Your task to perform on an android device: remove spam from my inbox in the gmail app Image 0: 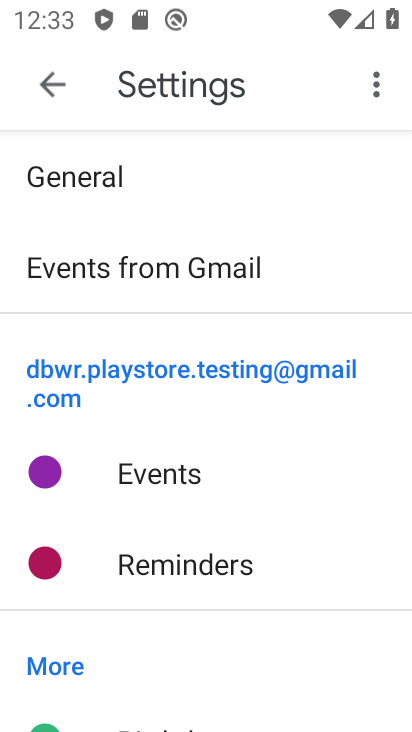
Step 0: press home button
Your task to perform on an android device: remove spam from my inbox in the gmail app Image 1: 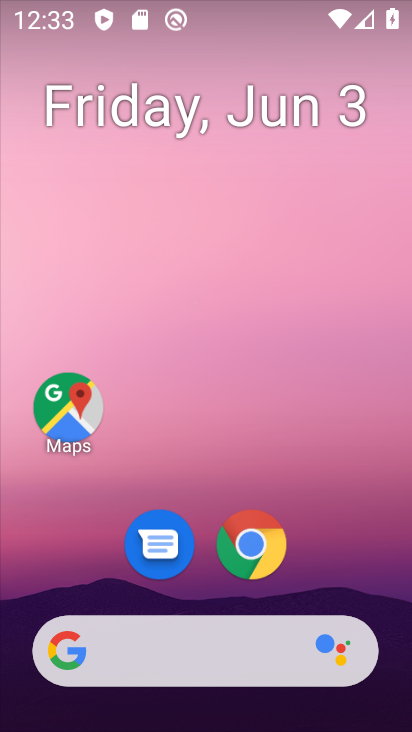
Step 1: drag from (201, 589) to (275, 23)
Your task to perform on an android device: remove spam from my inbox in the gmail app Image 2: 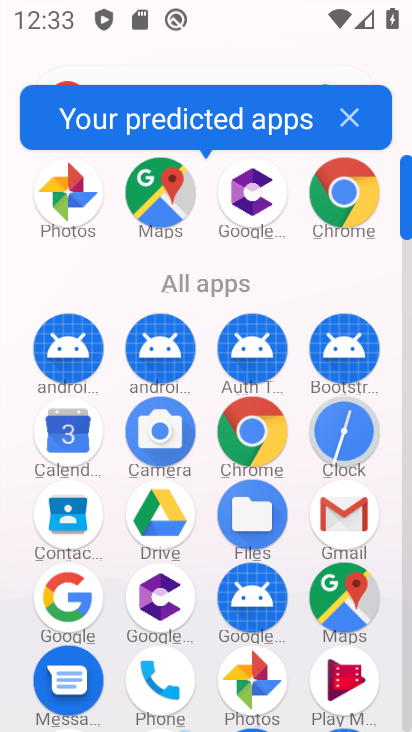
Step 2: click (337, 503)
Your task to perform on an android device: remove spam from my inbox in the gmail app Image 3: 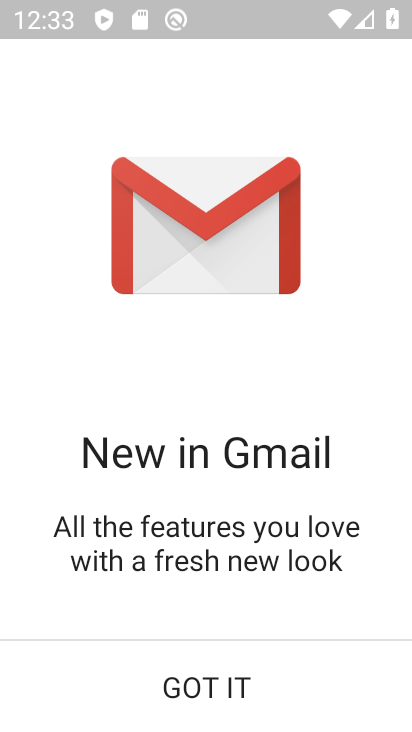
Step 3: click (224, 672)
Your task to perform on an android device: remove spam from my inbox in the gmail app Image 4: 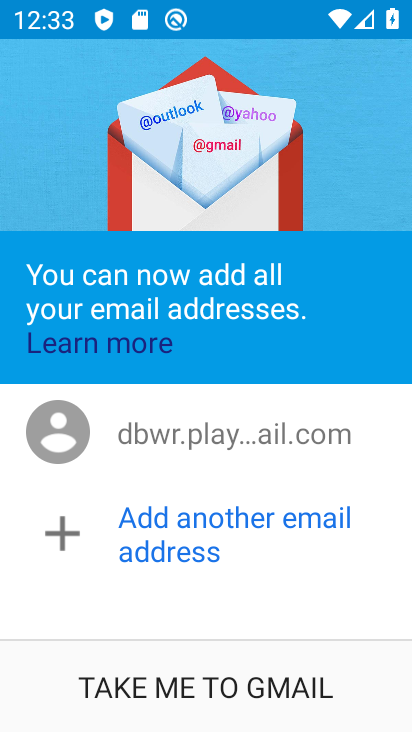
Step 4: click (211, 685)
Your task to perform on an android device: remove spam from my inbox in the gmail app Image 5: 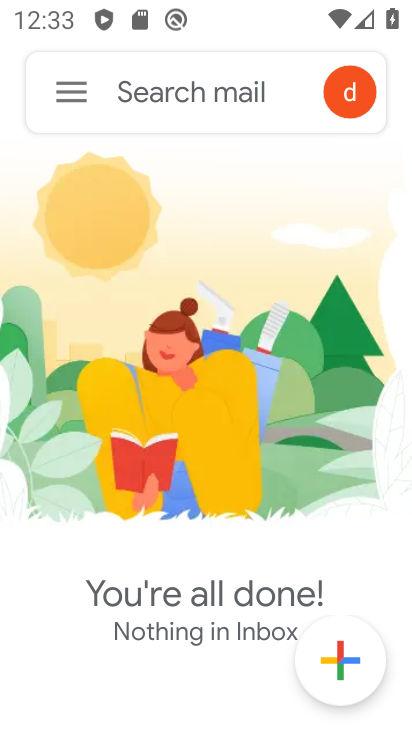
Step 5: click (64, 77)
Your task to perform on an android device: remove spam from my inbox in the gmail app Image 6: 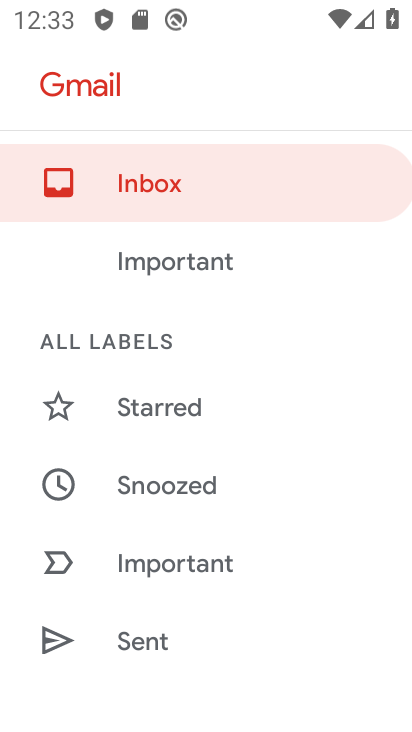
Step 6: drag from (164, 542) to (163, 51)
Your task to perform on an android device: remove spam from my inbox in the gmail app Image 7: 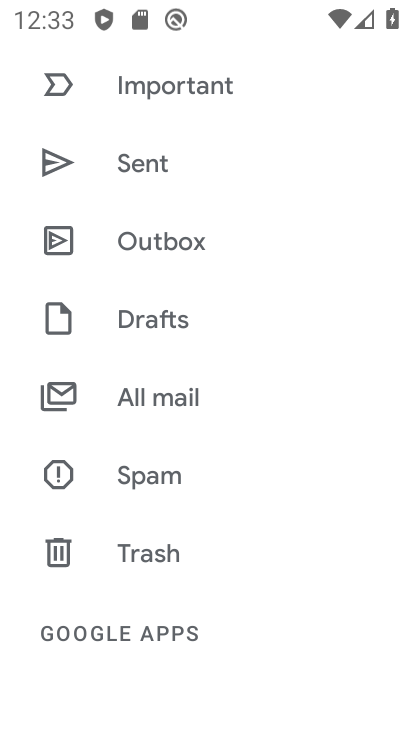
Step 7: click (180, 464)
Your task to perform on an android device: remove spam from my inbox in the gmail app Image 8: 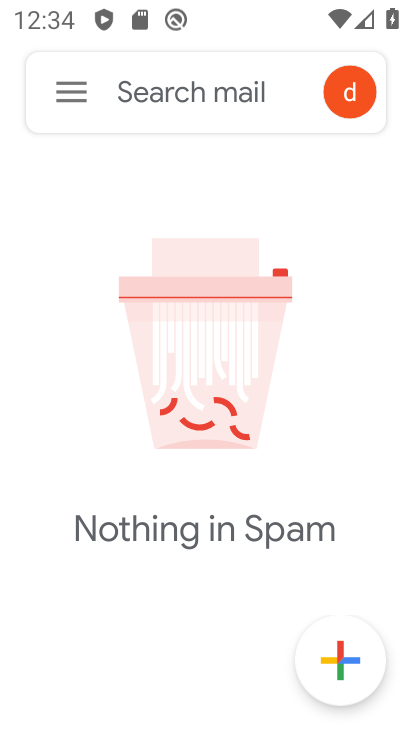
Step 8: task complete